Your task to perform on an android device: install app "DoorDash - Food Delivery" Image 0: 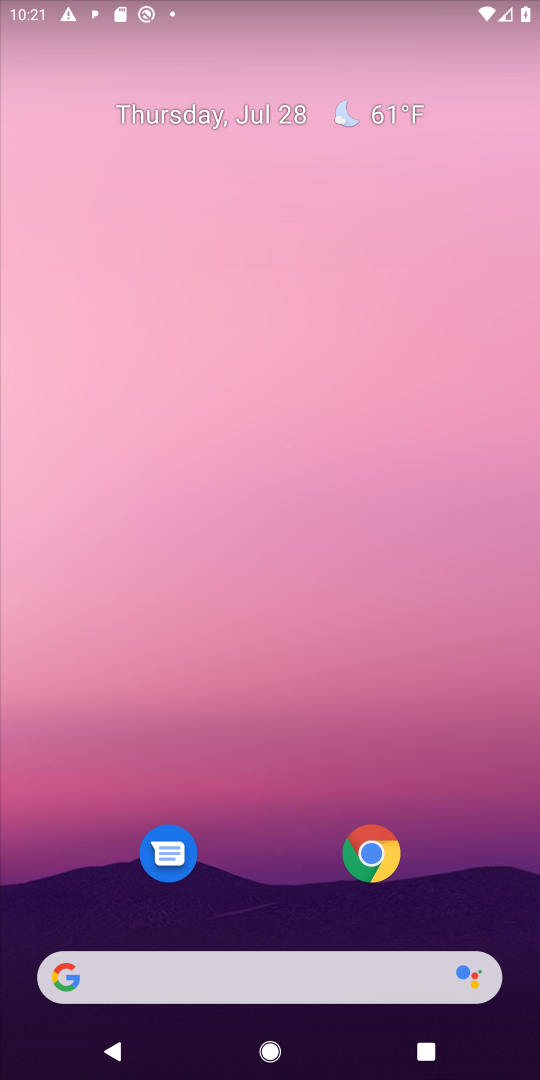
Step 0: drag from (221, 805) to (378, 337)
Your task to perform on an android device: install app "DoorDash - Food Delivery" Image 1: 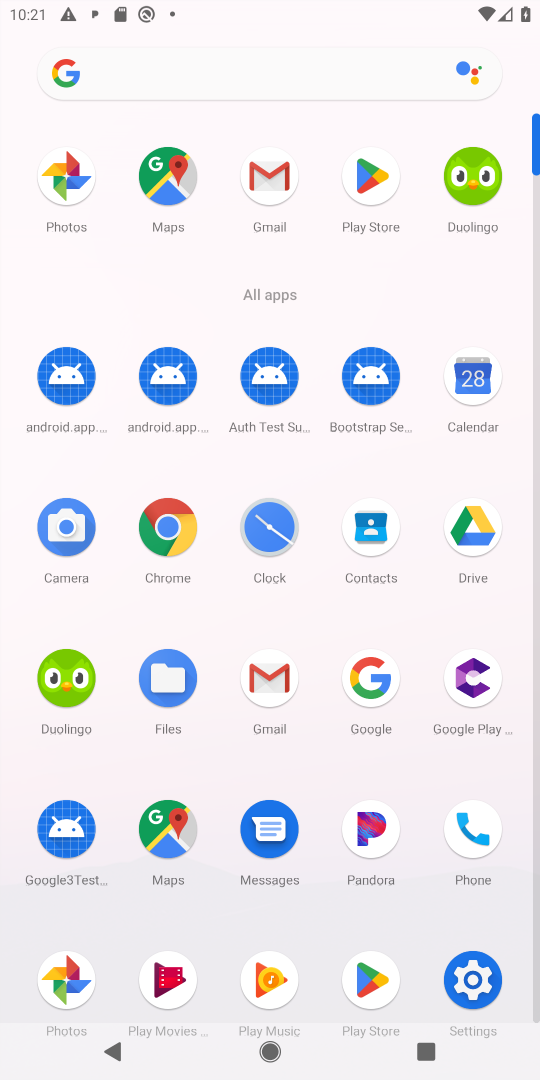
Step 1: click (378, 197)
Your task to perform on an android device: install app "DoorDash - Food Delivery" Image 2: 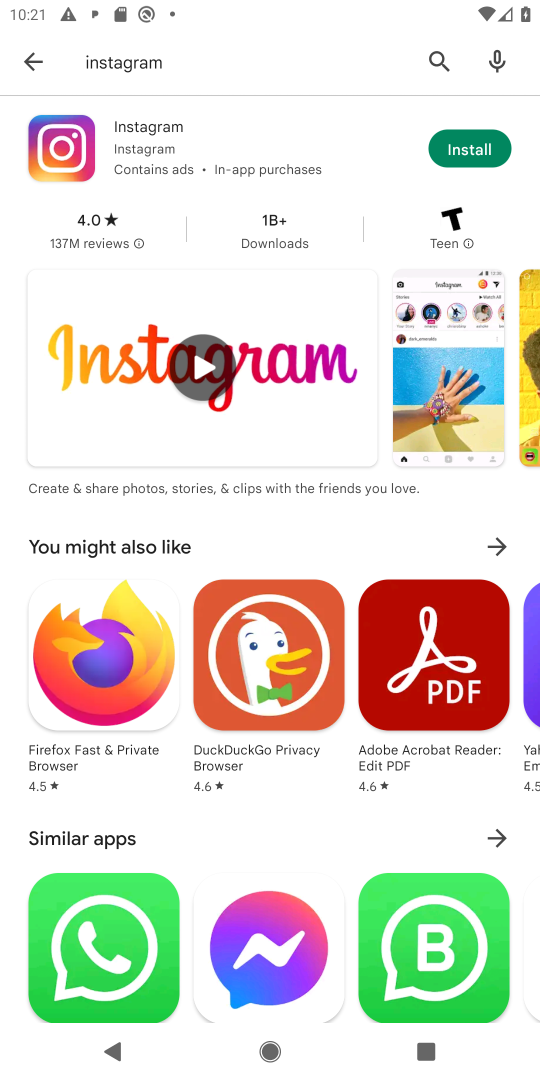
Step 2: click (441, 62)
Your task to perform on an android device: install app "DoorDash - Food Delivery" Image 3: 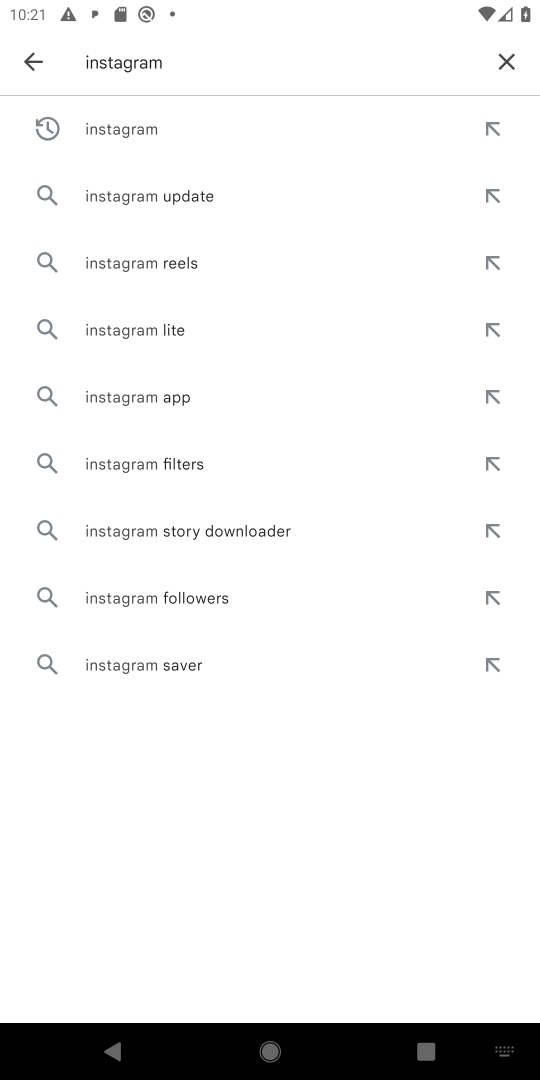
Step 3: click (511, 64)
Your task to perform on an android device: install app "DoorDash - Food Delivery" Image 4: 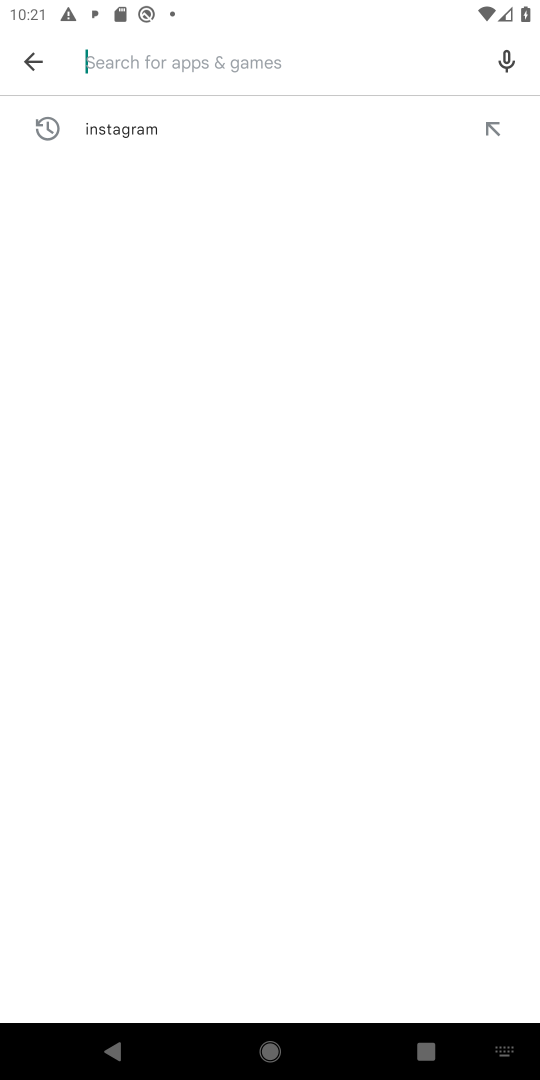
Step 4: type "DoorDash - Food Delivery"
Your task to perform on an android device: install app "DoorDash - Food Delivery" Image 5: 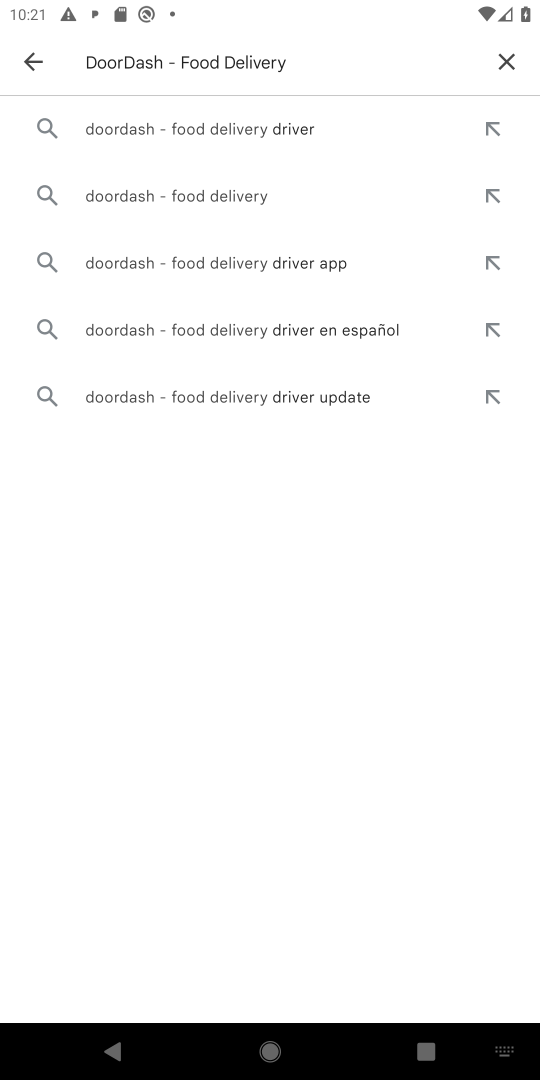
Step 5: click (343, 132)
Your task to perform on an android device: install app "DoorDash - Food Delivery" Image 6: 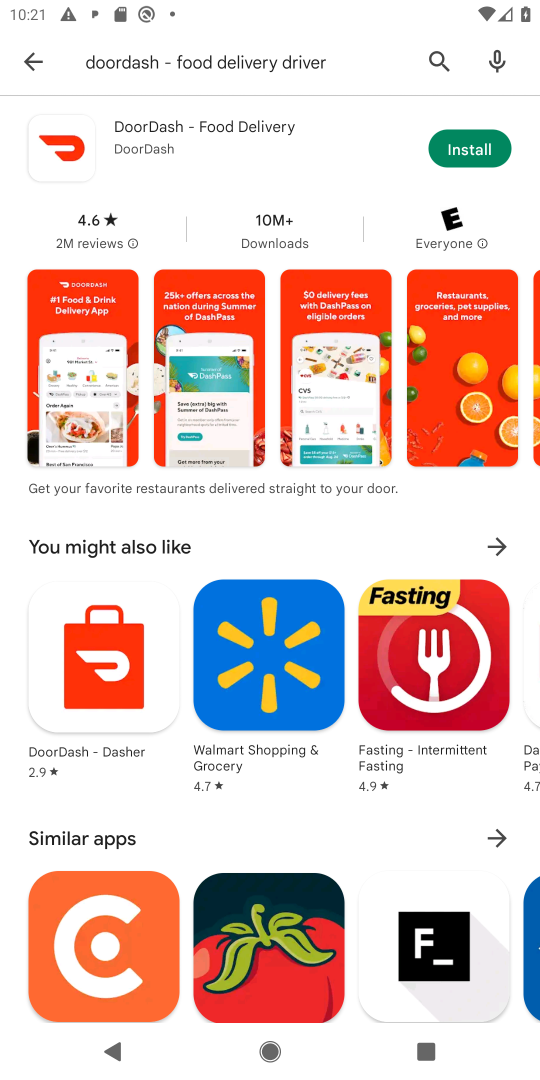
Step 6: click (478, 146)
Your task to perform on an android device: install app "DoorDash - Food Delivery" Image 7: 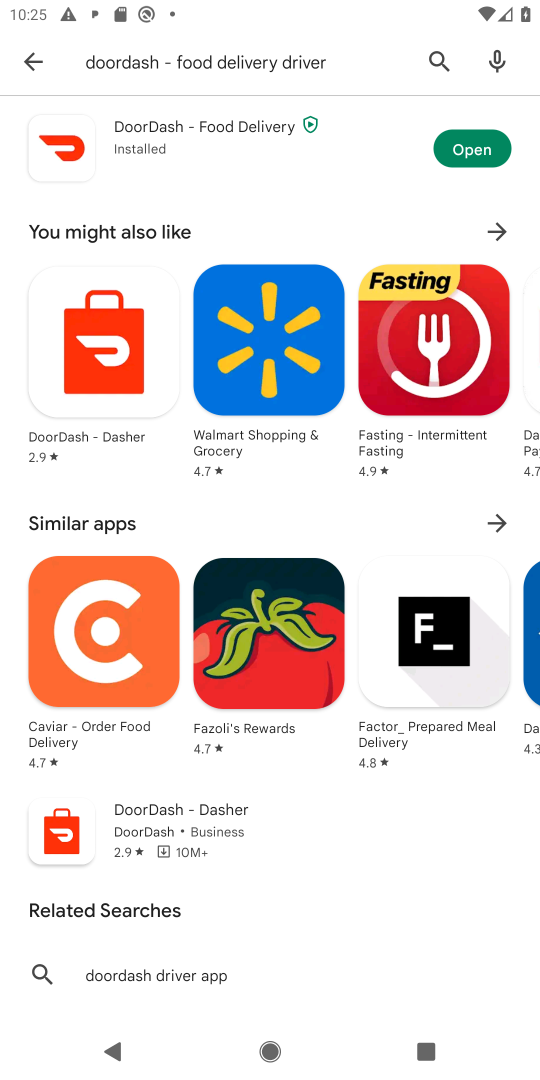
Step 7: task complete